Your task to perform on an android device: Open Android settings Image 0: 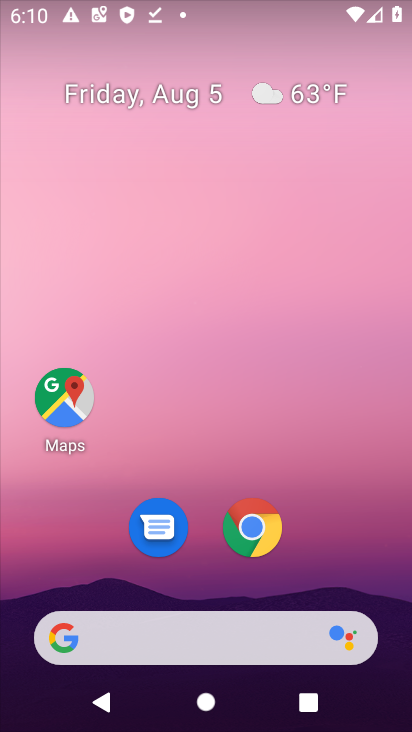
Step 0: drag from (243, 455) to (289, 190)
Your task to perform on an android device: Open Android settings Image 1: 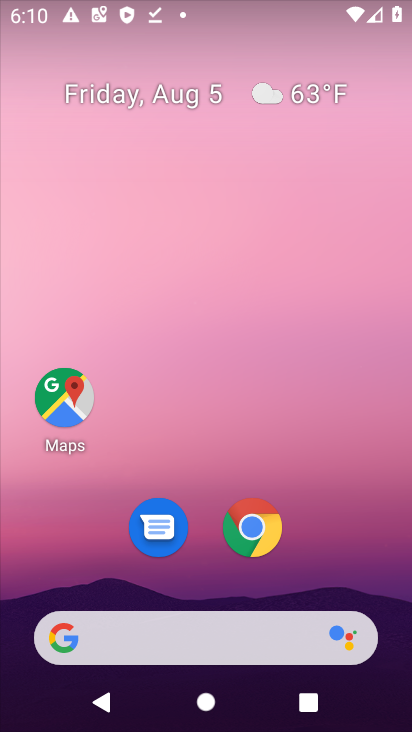
Step 1: drag from (210, 560) to (285, 33)
Your task to perform on an android device: Open Android settings Image 2: 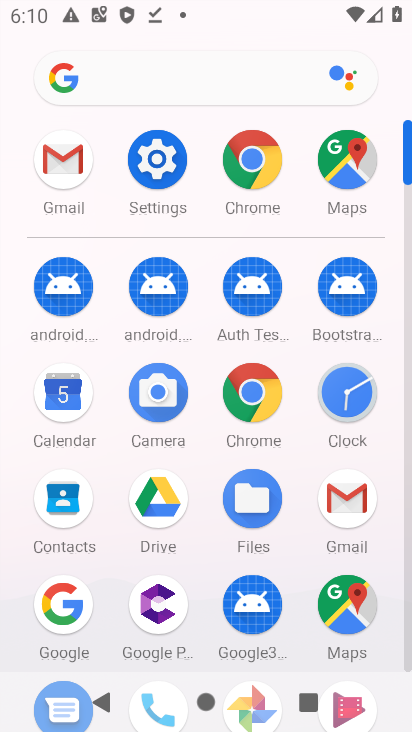
Step 2: click (161, 156)
Your task to perform on an android device: Open Android settings Image 3: 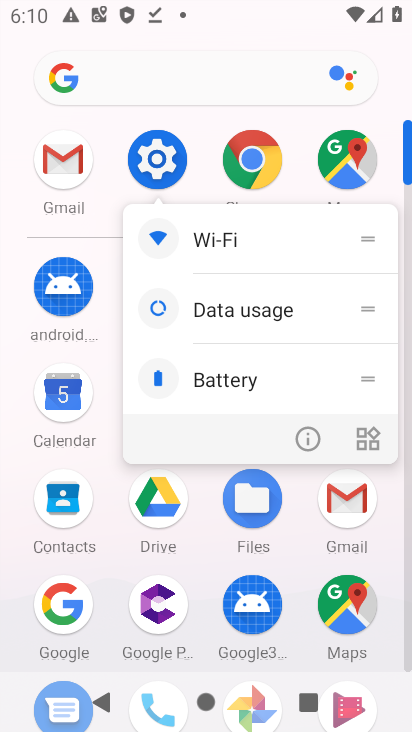
Step 3: click (301, 428)
Your task to perform on an android device: Open Android settings Image 4: 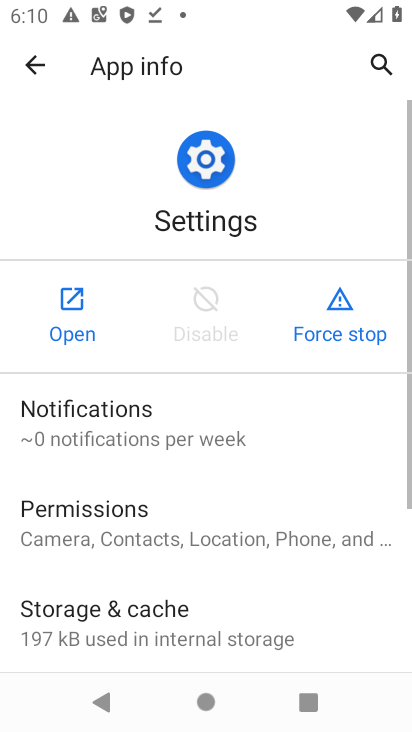
Step 4: click (74, 307)
Your task to perform on an android device: Open Android settings Image 5: 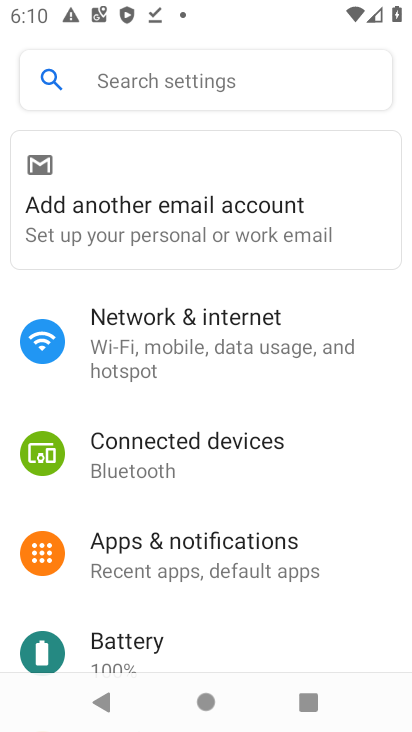
Step 5: drag from (233, 552) to (221, 293)
Your task to perform on an android device: Open Android settings Image 6: 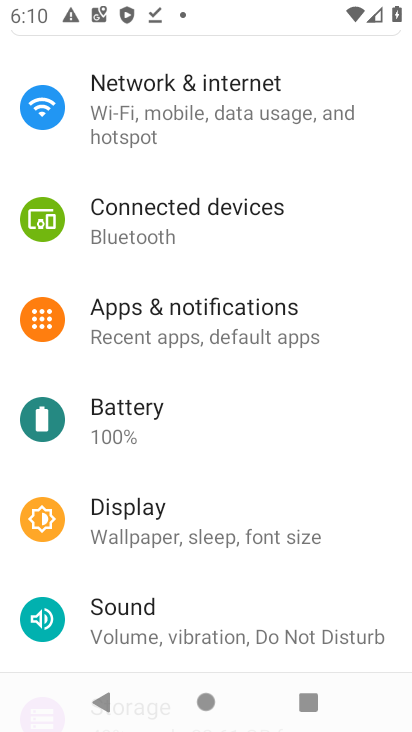
Step 6: drag from (112, 607) to (257, 277)
Your task to perform on an android device: Open Android settings Image 7: 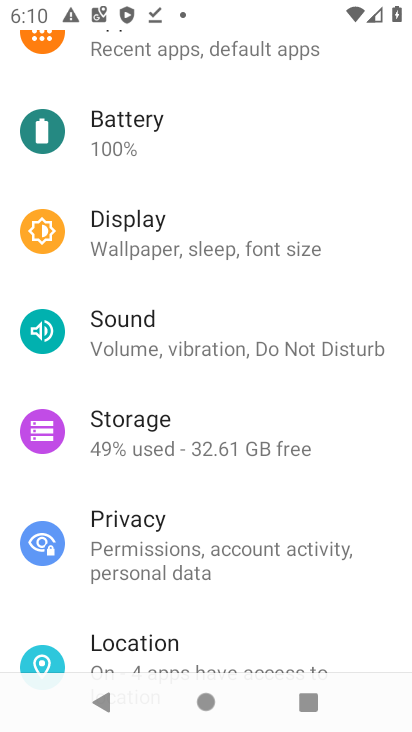
Step 7: drag from (198, 597) to (338, 63)
Your task to perform on an android device: Open Android settings Image 8: 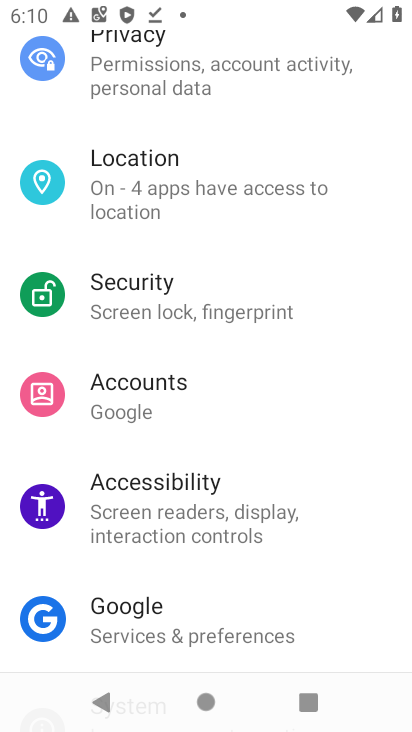
Step 8: drag from (228, 654) to (270, 194)
Your task to perform on an android device: Open Android settings Image 9: 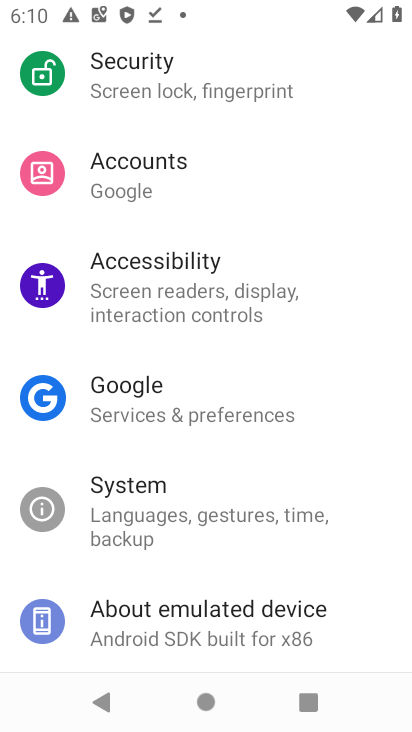
Step 9: click (136, 631)
Your task to perform on an android device: Open Android settings Image 10: 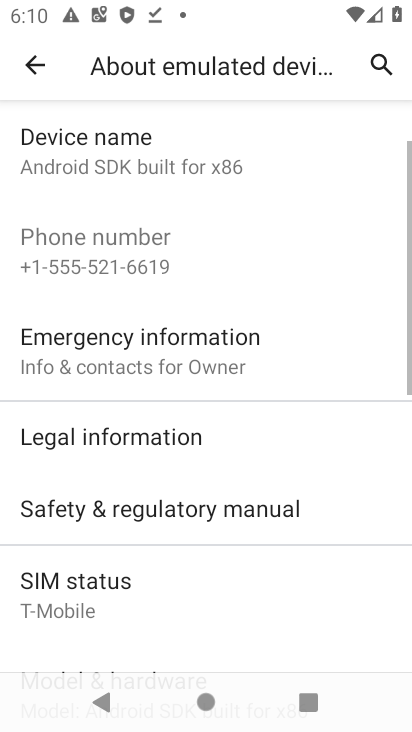
Step 10: drag from (159, 584) to (229, 174)
Your task to perform on an android device: Open Android settings Image 11: 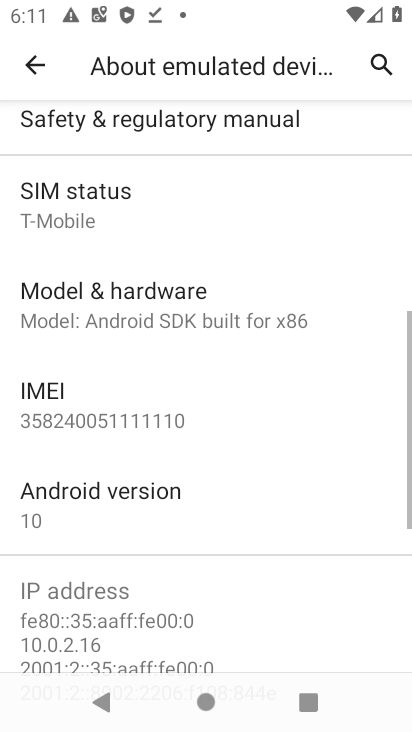
Step 11: click (192, 522)
Your task to perform on an android device: Open Android settings Image 12: 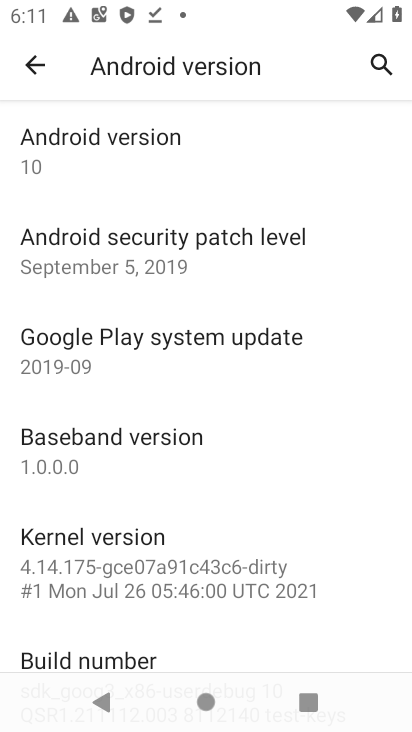
Step 12: click (197, 150)
Your task to perform on an android device: Open Android settings Image 13: 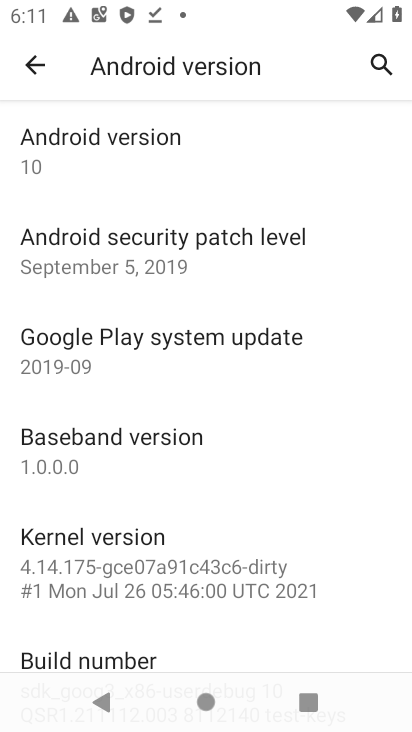
Step 13: click (179, 145)
Your task to perform on an android device: Open Android settings Image 14: 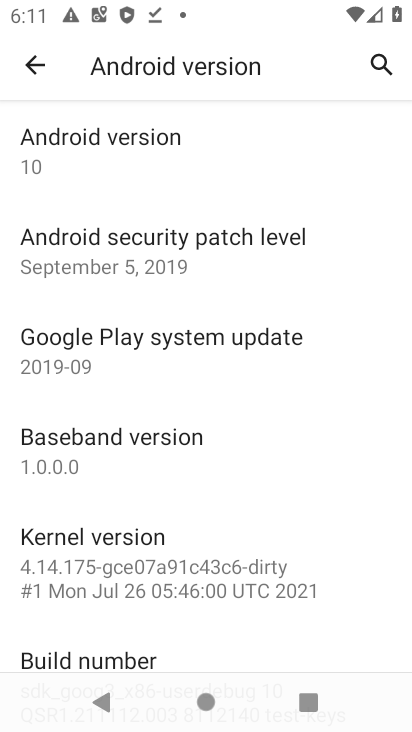
Step 14: task complete